Your task to perform on an android device: star an email in the gmail app Image 0: 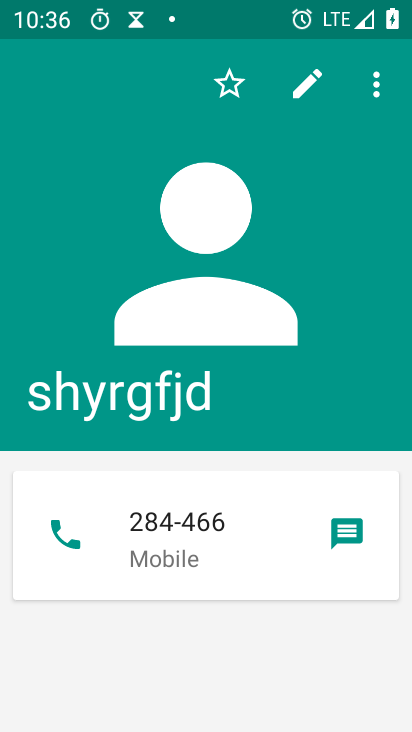
Step 0: press home button
Your task to perform on an android device: star an email in the gmail app Image 1: 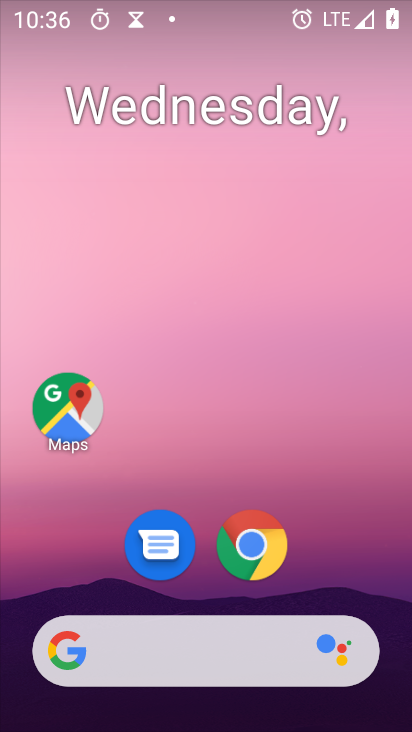
Step 1: drag from (190, 658) to (342, 209)
Your task to perform on an android device: star an email in the gmail app Image 2: 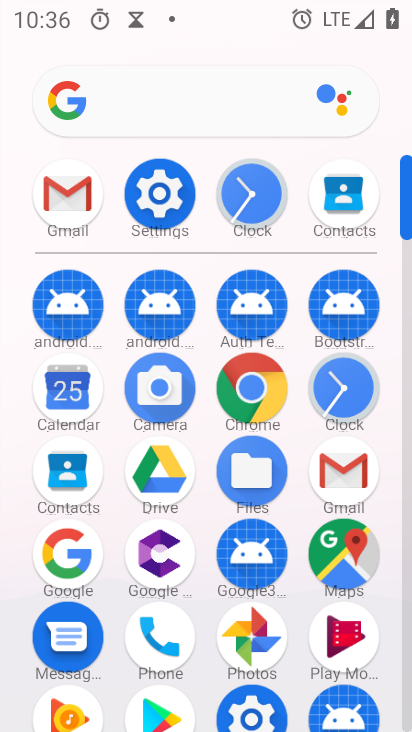
Step 2: click (71, 201)
Your task to perform on an android device: star an email in the gmail app Image 3: 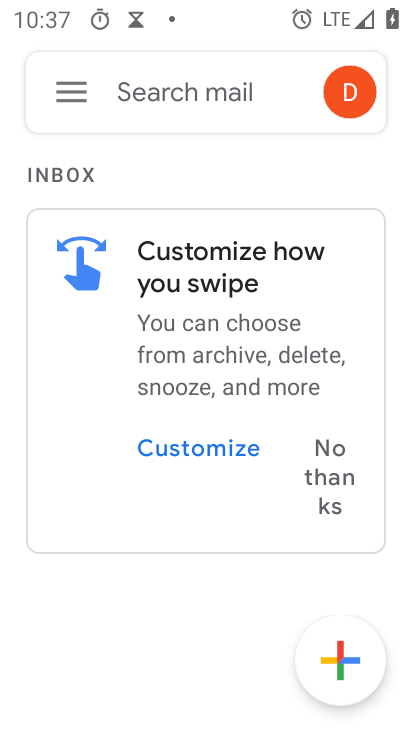
Step 3: task complete